Your task to perform on an android device: turn on notifications settings in the gmail app Image 0: 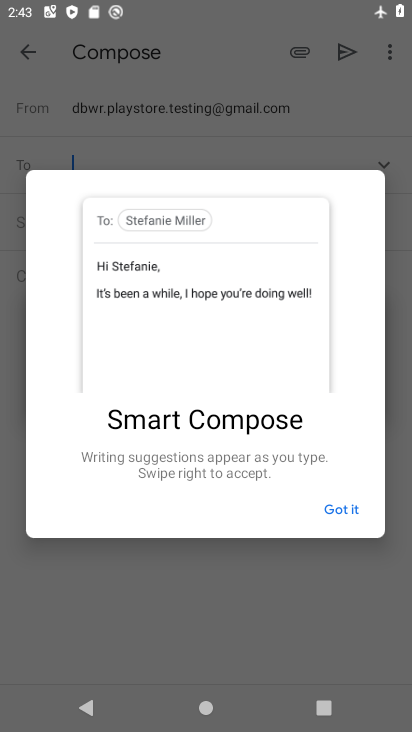
Step 0: press home button
Your task to perform on an android device: turn on notifications settings in the gmail app Image 1: 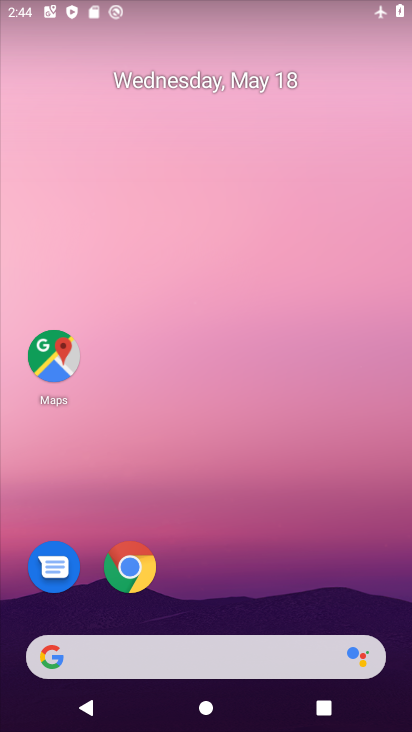
Step 1: drag from (297, 602) to (248, 256)
Your task to perform on an android device: turn on notifications settings in the gmail app Image 2: 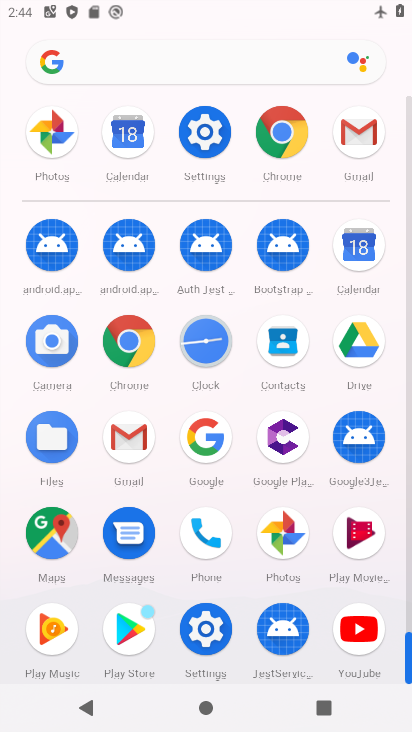
Step 2: click (345, 127)
Your task to perform on an android device: turn on notifications settings in the gmail app Image 3: 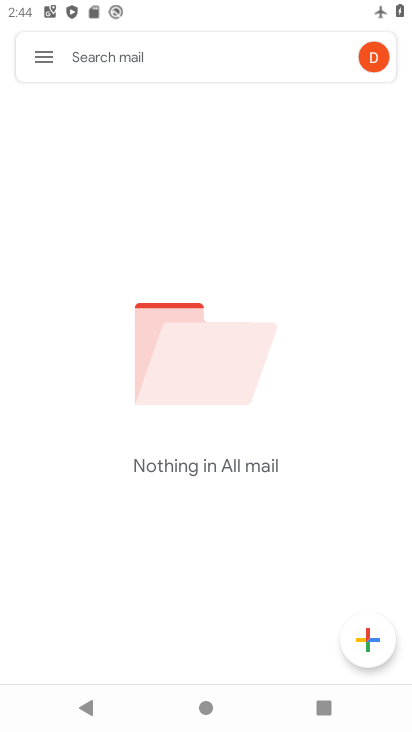
Step 3: click (48, 50)
Your task to perform on an android device: turn on notifications settings in the gmail app Image 4: 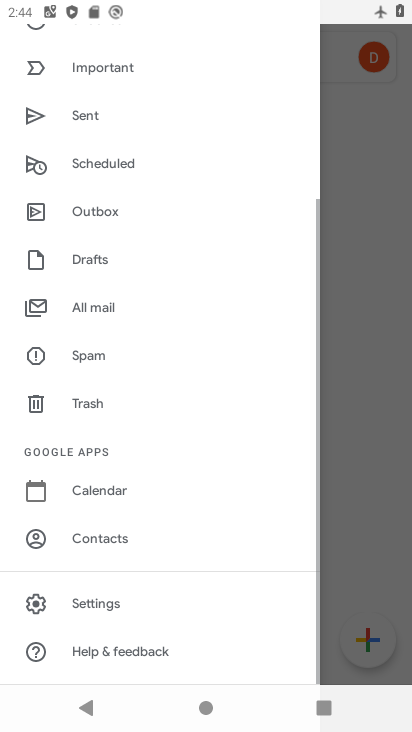
Step 4: click (121, 584)
Your task to perform on an android device: turn on notifications settings in the gmail app Image 5: 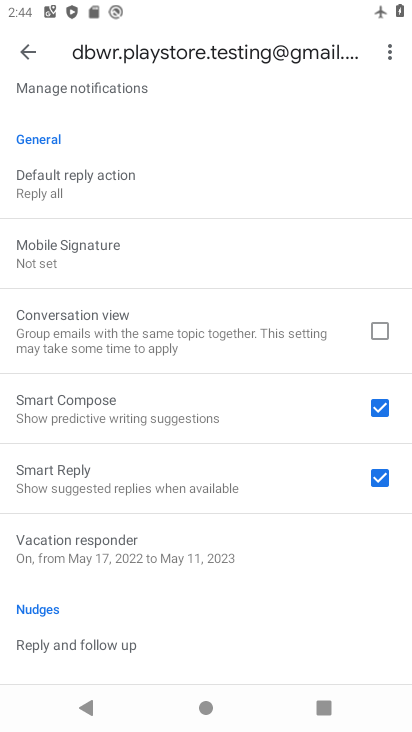
Step 5: drag from (191, 561) to (174, 289)
Your task to perform on an android device: turn on notifications settings in the gmail app Image 6: 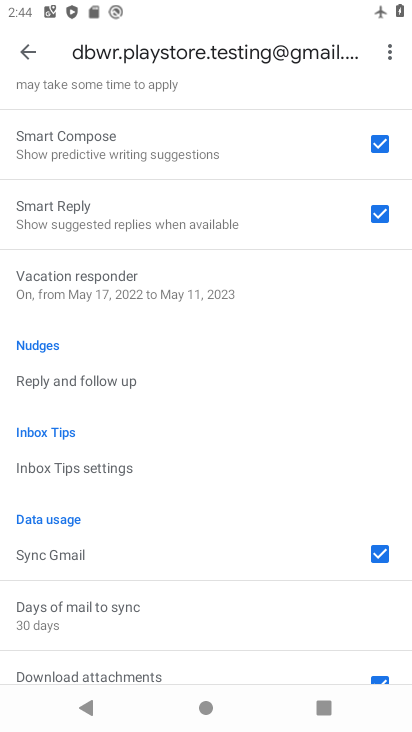
Step 6: drag from (94, 294) to (98, 589)
Your task to perform on an android device: turn on notifications settings in the gmail app Image 7: 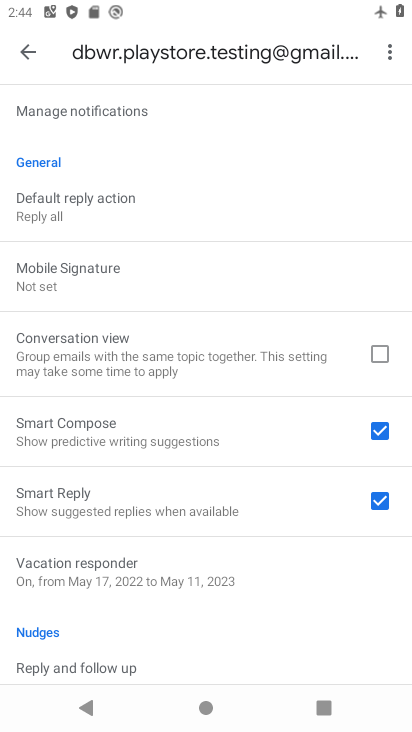
Step 7: drag from (76, 196) to (111, 536)
Your task to perform on an android device: turn on notifications settings in the gmail app Image 8: 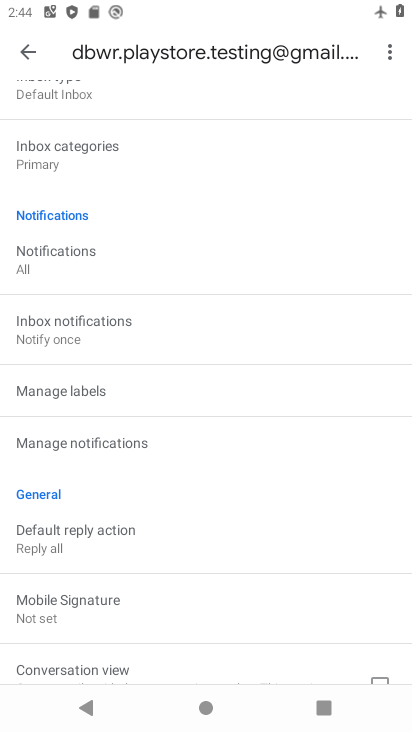
Step 8: click (81, 246)
Your task to perform on an android device: turn on notifications settings in the gmail app Image 9: 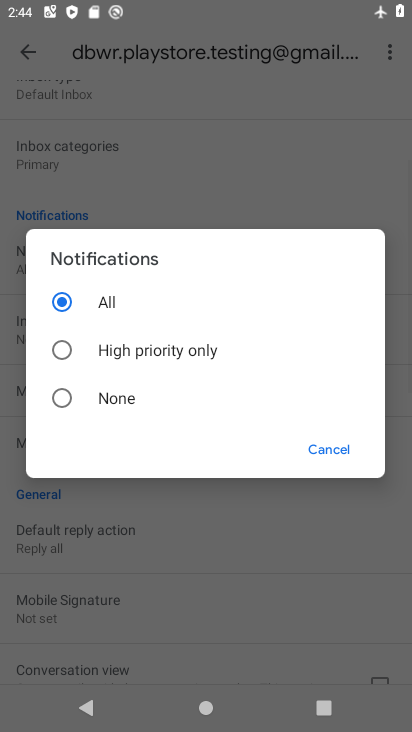
Step 9: click (126, 406)
Your task to perform on an android device: turn on notifications settings in the gmail app Image 10: 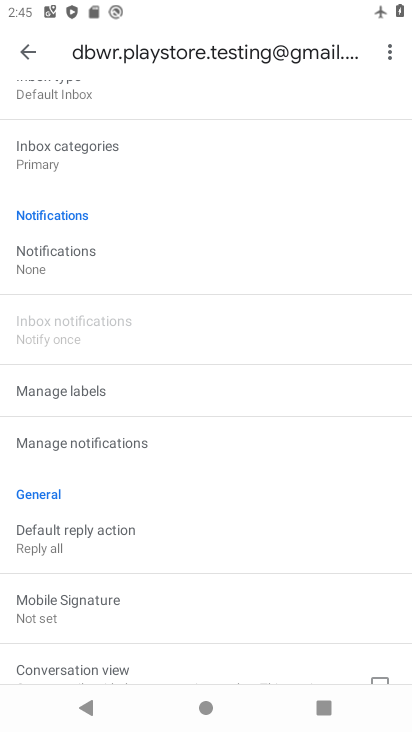
Step 10: click (98, 241)
Your task to perform on an android device: turn on notifications settings in the gmail app Image 11: 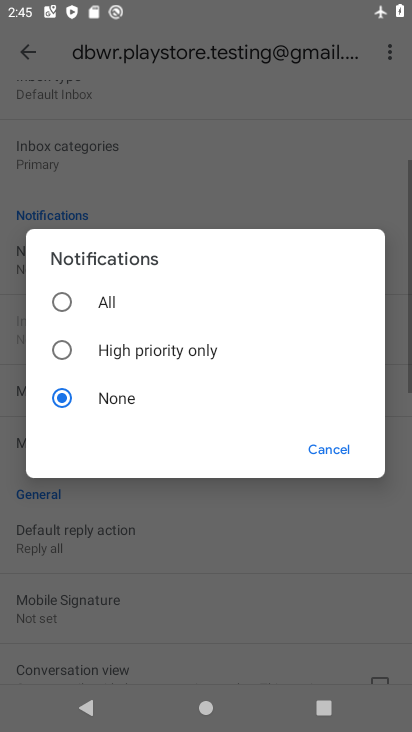
Step 11: click (106, 295)
Your task to perform on an android device: turn on notifications settings in the gmail app Image 12: 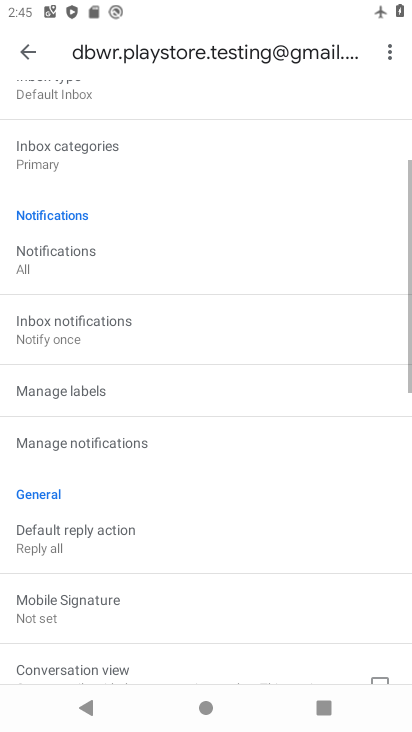
Step 12: task complete